Your task to perform on an android device: turn pop-ups on in chrome Image 0: 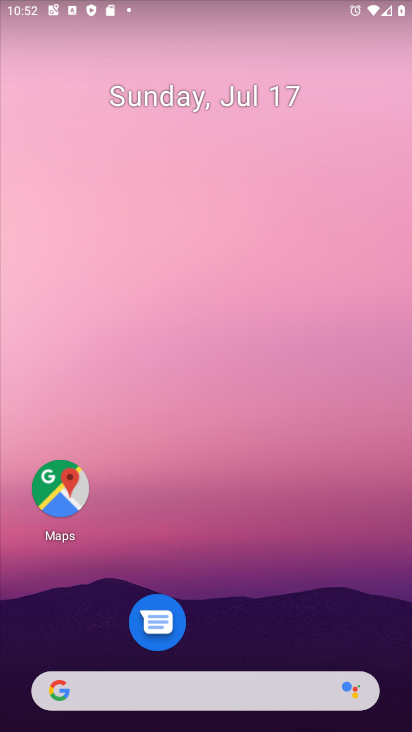
Step 0: drag from (217, 713) to (205, 15)
Your task to perform on an android device: turn pop-ups on in chrome Image 1: 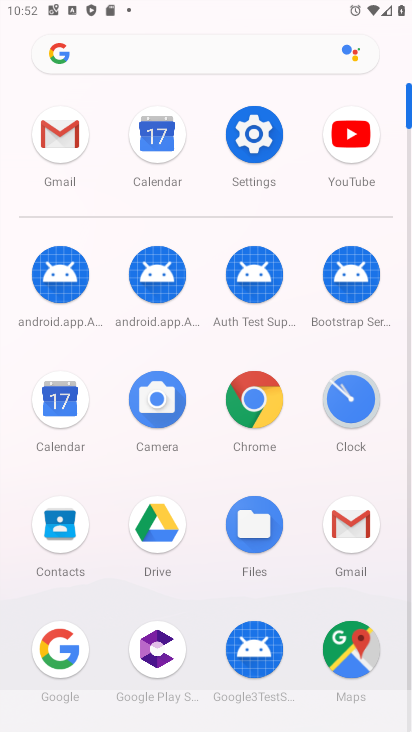
Step 1: click (259, 400)
Your task to perform on an android device: turn pop-ups on in chrome Image 2: 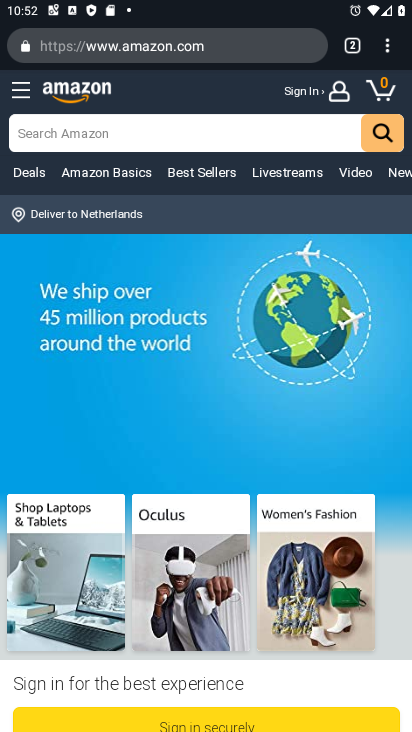
Step 2: click (383, 42)
Your task to perform on an android device: turn pop-ups on in chrome Image 3: 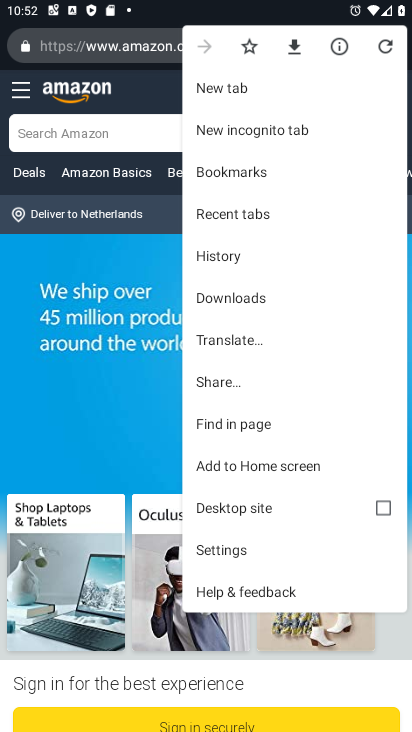
Step 3: click (232, 547)
Your task to perform on an android device: turn pop-ups on in chrome Image 4: 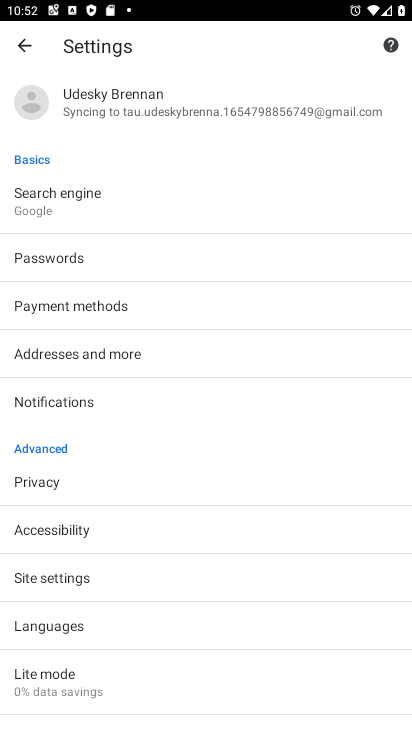
Step 4: click (95, 578)
Your task to perform on an android device: turn pop-ups on in chrome Image 5: 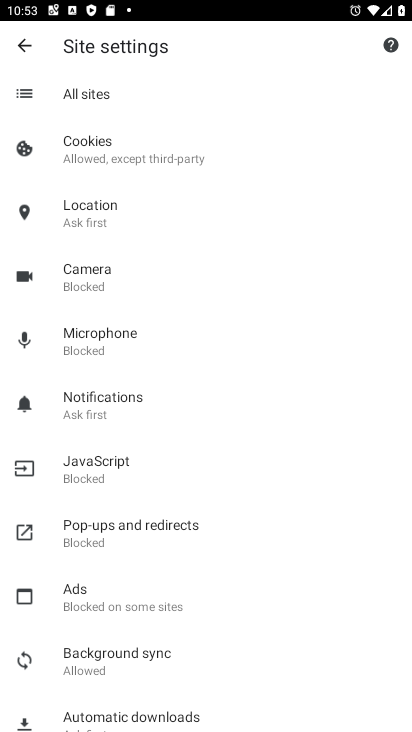
Step 5: click (95, 537)
Your task to perform on an android device: turn pop-ups on in chrome Image 6: 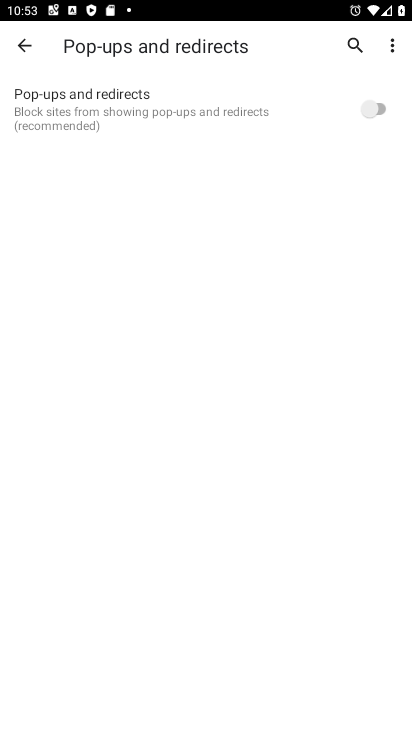
Step 6: click (375, 111)
Your task to perform on an android device: turn pop-ups on in chrome Image 7: 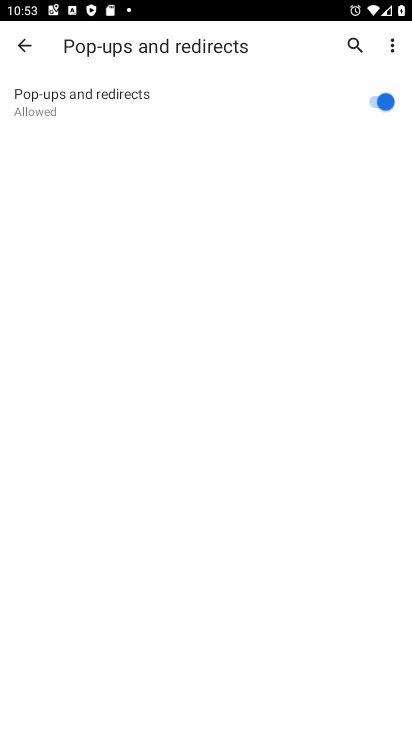
Step 7: task complete